Your task to perform on an android device: Open Maps and search for coffee Image 0: 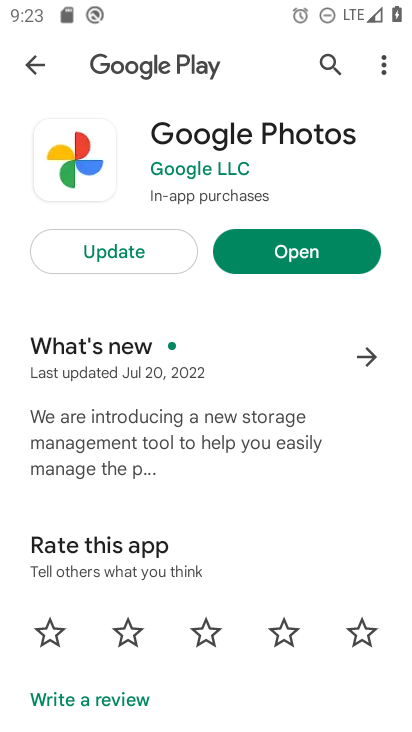
Step 0: press home button
Your task to perform on an android device: Open Maps and search for coffee Image 1: 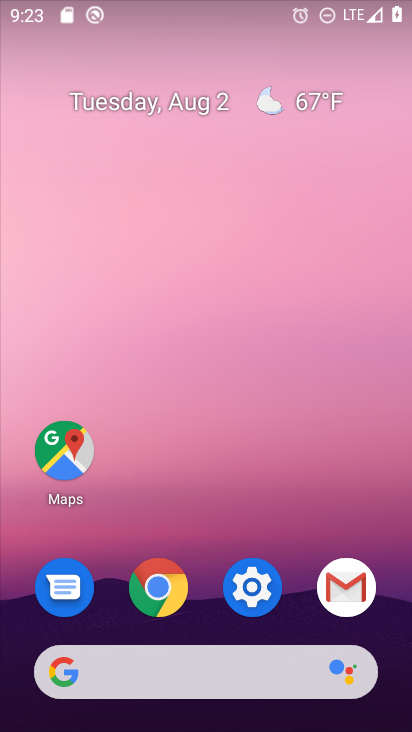
Step 1: click (76, 438)
Your task to perform on an android device: Open Maps and search for coffee Image 2: 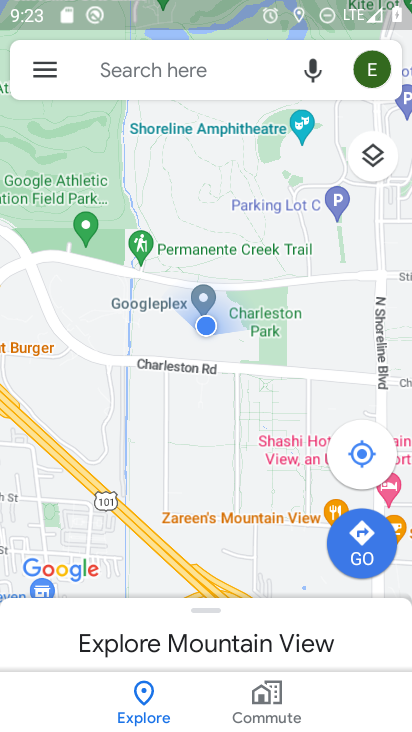
Step 2: click (170, 76)
Your task to perform on an android device: Open Maps and search for coffee Image 3: 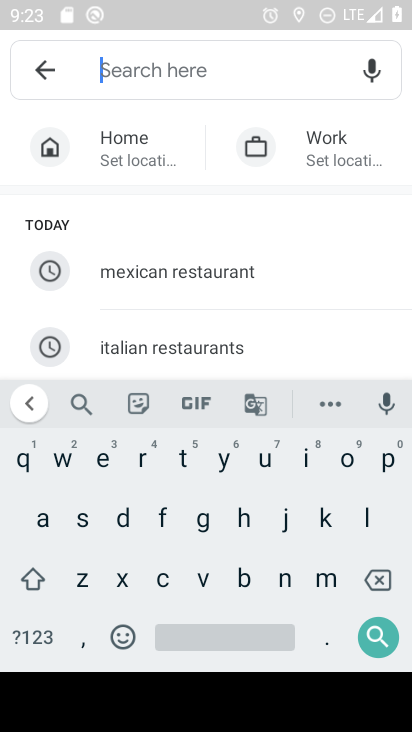
Step 3: click (160, 576)
Your task to perform on an android device: Open Maps and search for coffee Image 4: 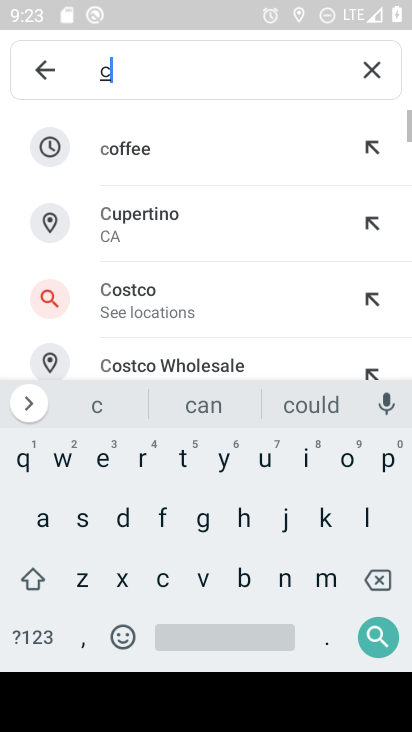
Step 4: click (157, 154)
Your task to perform on an android device: Open Maps and search for coffee Image 5: 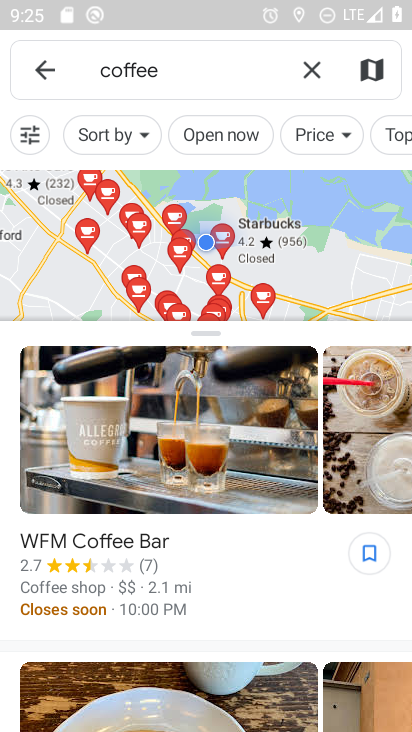
Step 5: task complete